Your task to perform on an android device: add a label to a message in the gmail app Image 0: 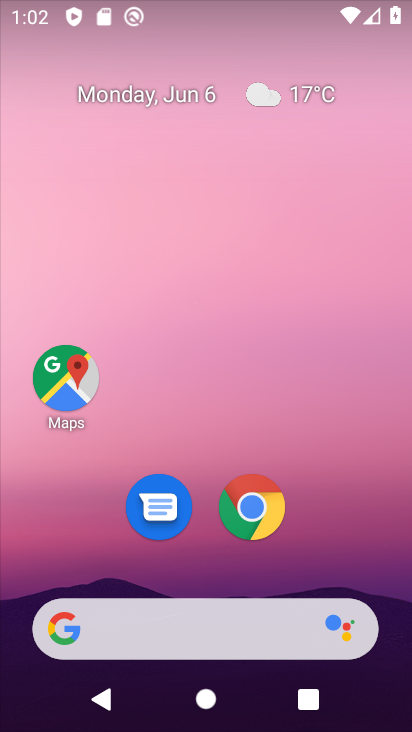
Step 0: drag from (265, 652) to (174, 238)
Your task to perform on an android device: add a label to a message in the gmail app Image 1: 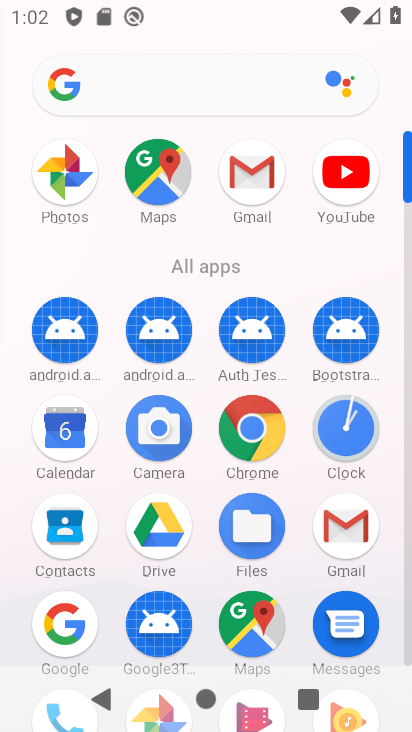
Step 1: click (244, 188)
Your task to perform on an android device: add a label to a message in the gmail app Image 2: 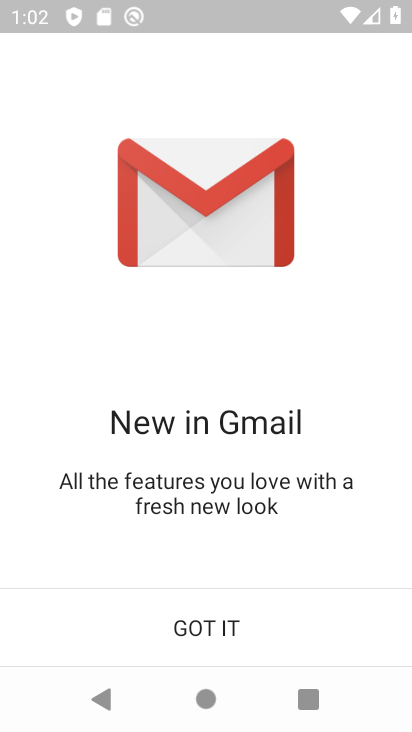
Step 2: click (216, 612)
Your task to perform on an android device: add a label to a message in the gmail app Image 3: 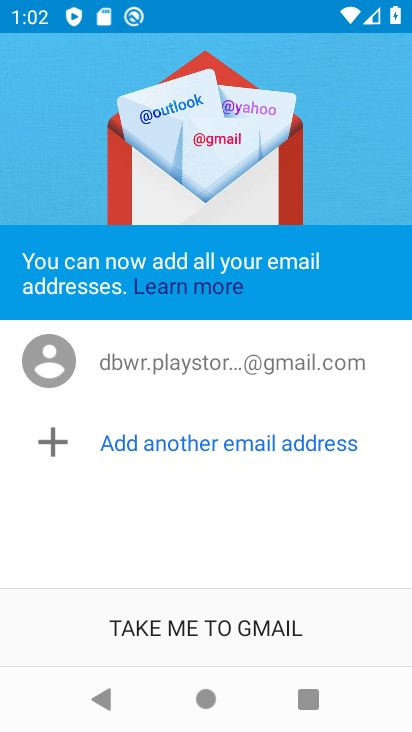
Step 3: click (184, 621)
Your task to perform on an android device: add a label to a message in the gmail app Image 4: 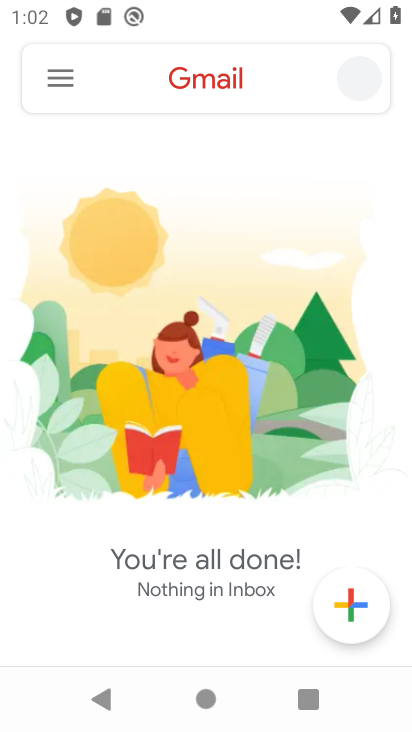
Step 4: click (59, 73)
Your task to perform on an android device: add a label to a message in the gmail app Image 5: 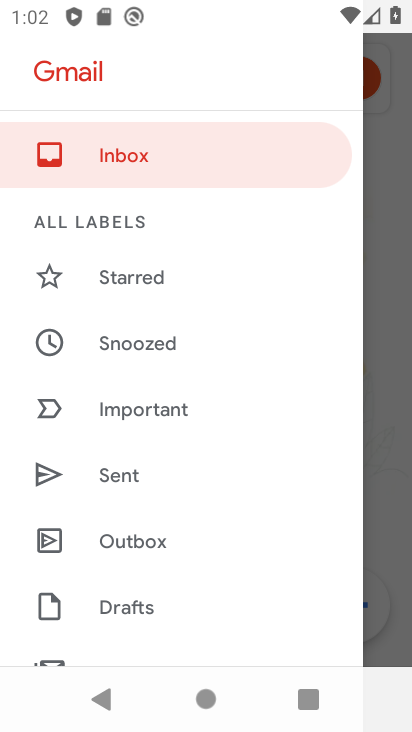
Step 5: drag from (124, 601) to (164, 408)
Your task to perform on an android device: add a label to a message in the gmail app Image 6: 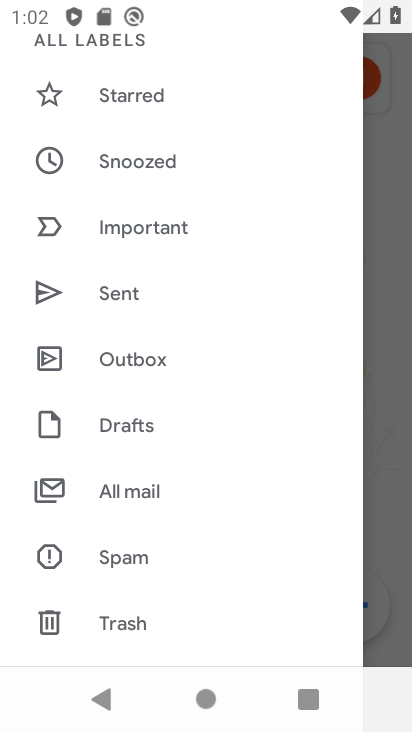
Step 6: drag from (169, 615) to (185, 358)
Your task to perform on an android device: add a label to a message in the gmail app Image 7: 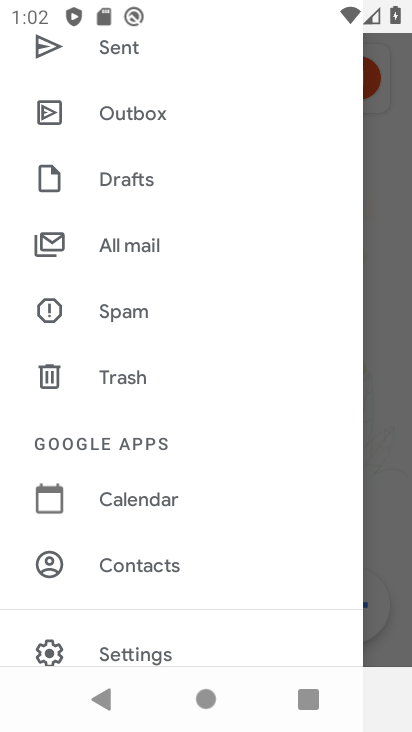
Step 7: click (110, 654)
Your task to perform on an android device: add a label to a message in the gmail app Image 8: 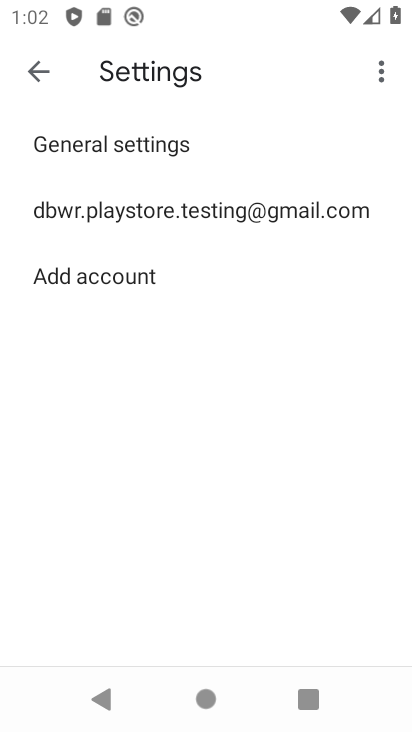
Step 8: click (149, 198)
Your task to perform on an android device: add a label to a message in the gmail app Image 9: 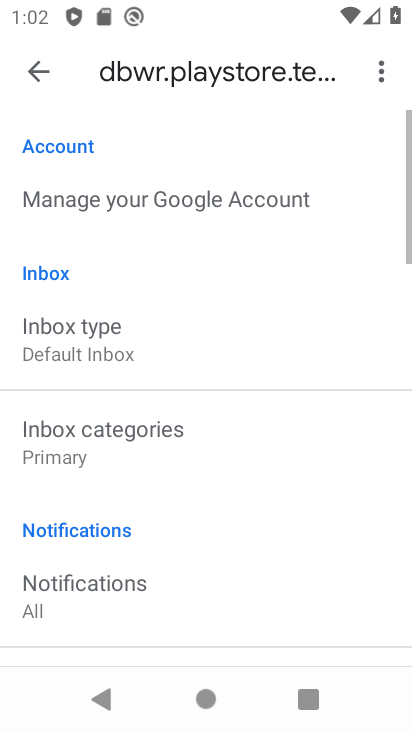
Step 9: click (145, 419)
Your task to perform on an android device: add a label to a message in the gmail app Image 10: 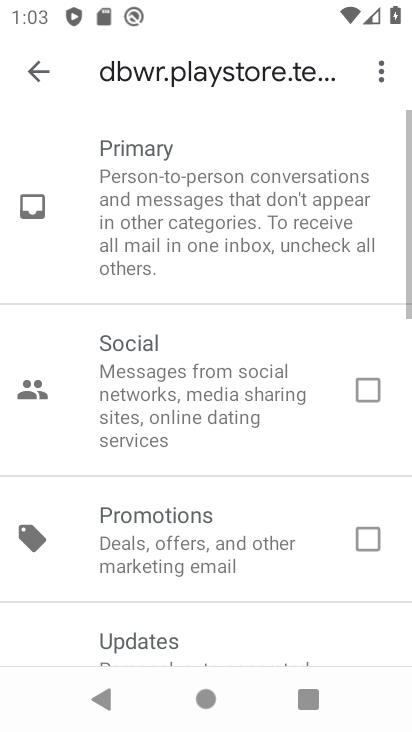
Step 10: click (47, 86)
Your task to perform on an android device: add a label to a message in the gmail app Image 11: 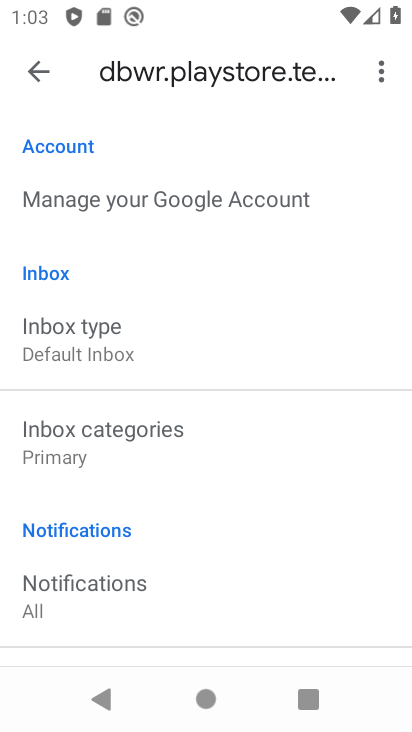
Step 11: drag from (109, 447) to (124, 329)
Your task to perform on an android device: add a label to a message in the gmail app Image 12: 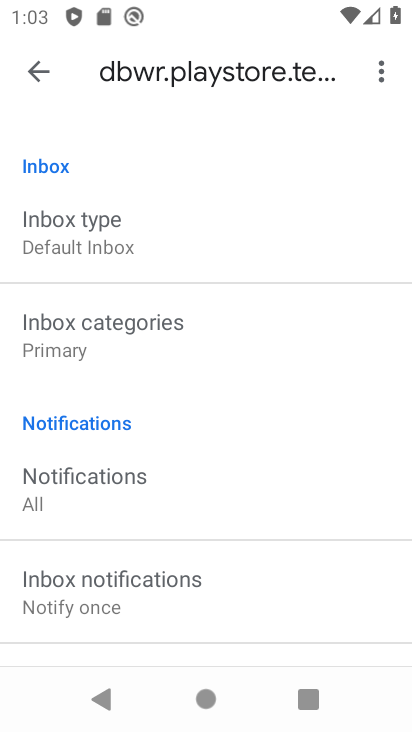
Step 12: drag from (92, 571) to (126, 416)
Your task to perform on an android device: add a label to a message in the gmail app Image 13: 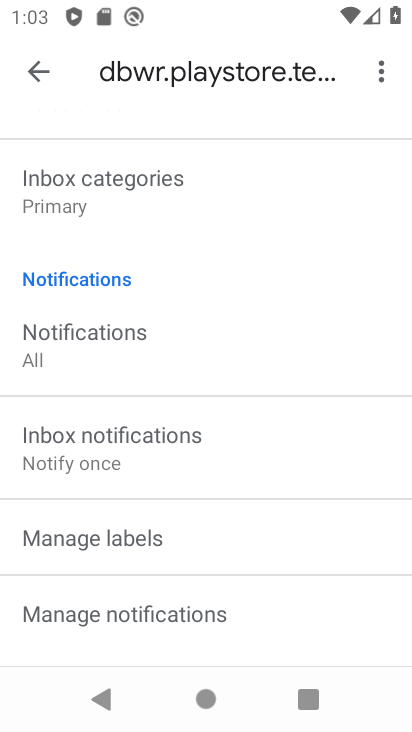
Step 13: click (93, 551)
Your task to perform on an android device: add a label to a message in the gmail app Image 14: 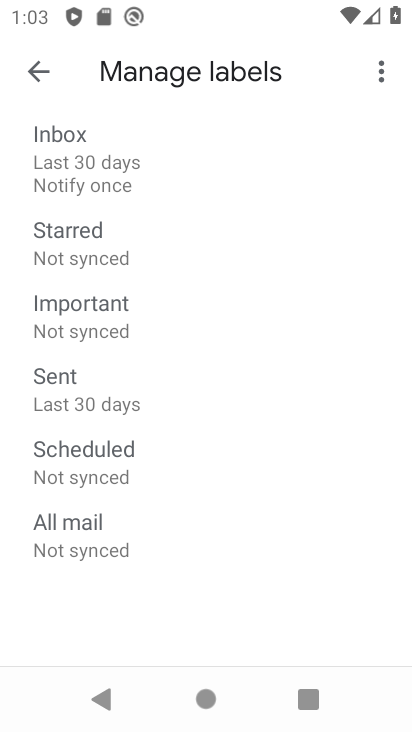
Step 14: click (150, 301)
Your task to perform on an android device: add a label to a message in the gmail app Image 15: 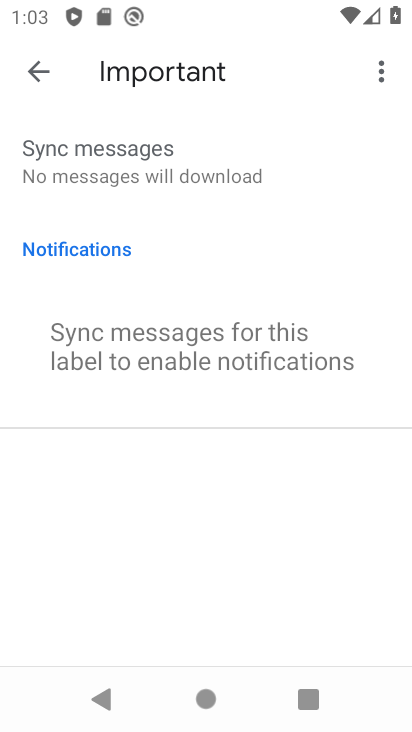
Step 15: task complete